Your task to perform on an android device: add a contact in the contacts app Image 0: 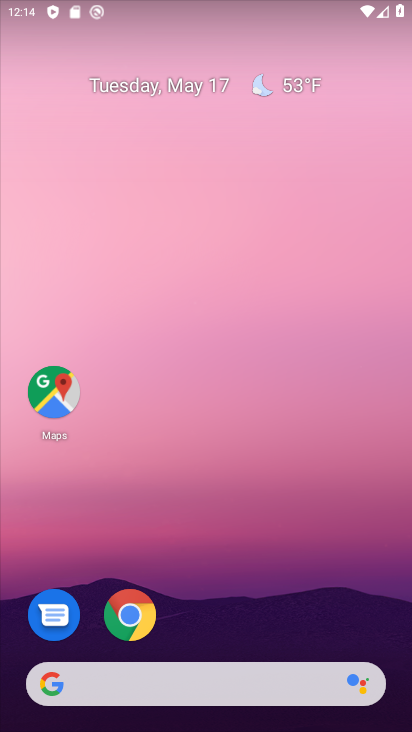
Step 0: drag from (356, 605) to (347, 138)
Your task to perform on an android device: add a contact in the contacts app Image 1: 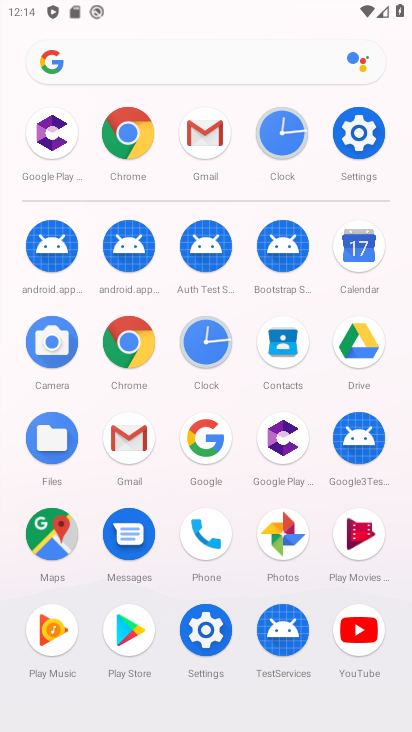
Step 1: click (277, 348)
Your task to perform on an android device: add a contact in the contacts app Image 2: 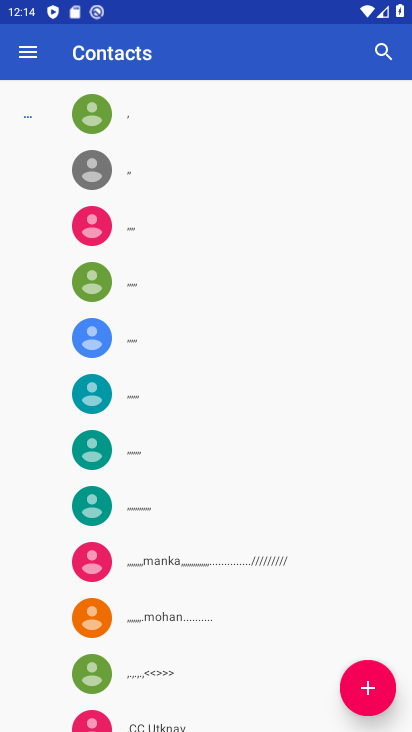
Step 2: click (360, 689)
Your task to perform on an android device: add a contact in the contacts app Image 3: 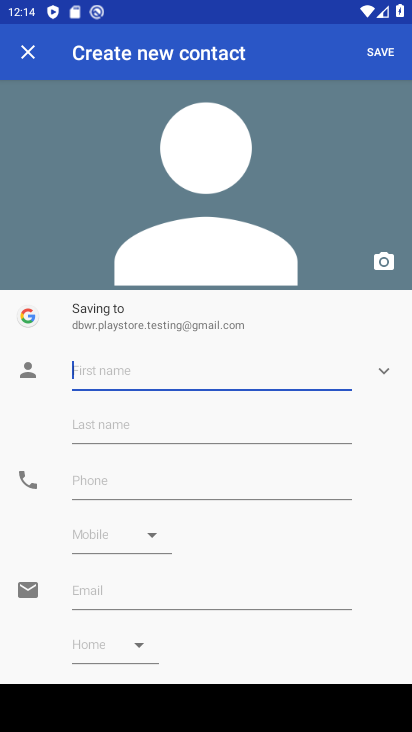
Step 3: type "dascsdc"
Your task to perform on an android device: add a contact in the contacts app Image 4: 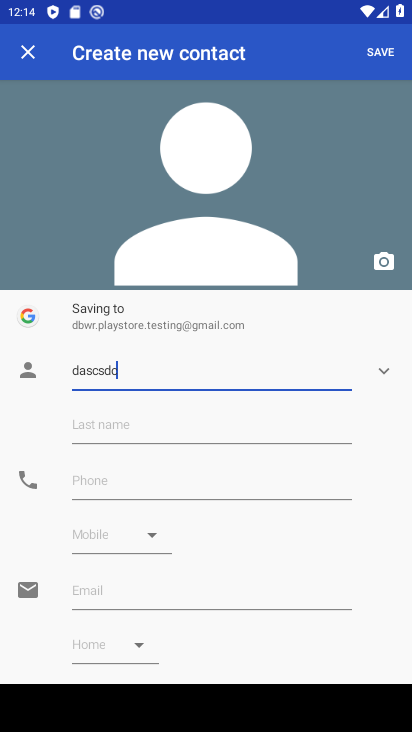
Step 4: click (269, 433)
Your task to perform on an android device: add a contact in the contacts app Image 5: 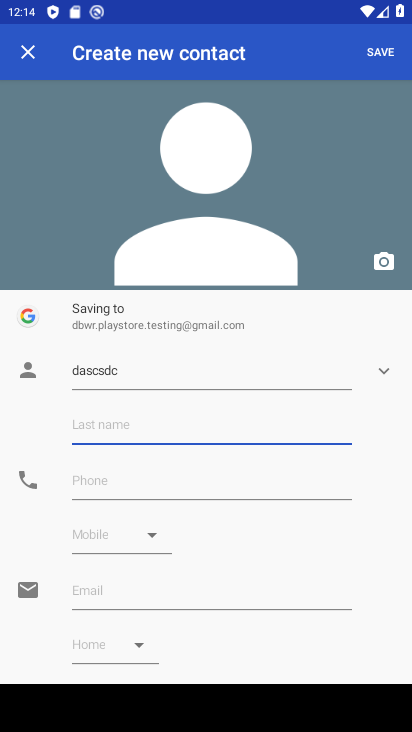
Step 5: type "scsd"
Your task to perform on an android device: add a contact in the contacts app Image 6: 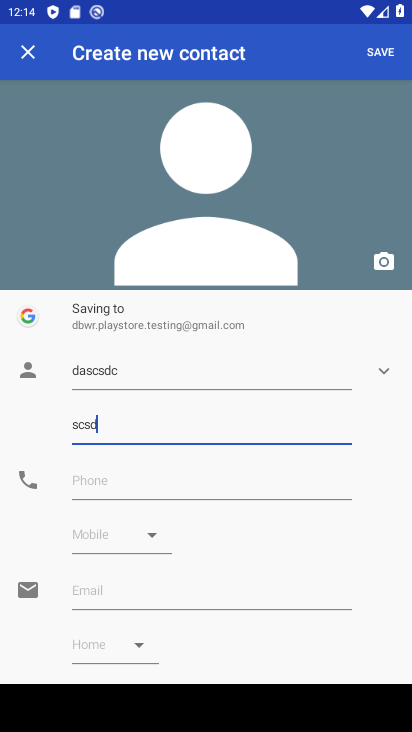
Step 6: type "ccdscdsc"
Your task to perform on an android device: add a contact in the contacts app Image 7: 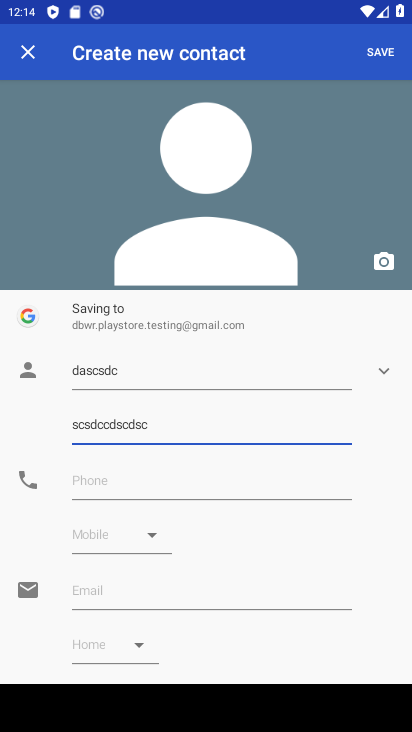
Step 7: click (244, 480)
Your task to perform on an android device: add a contact in the contacts app Image 8: 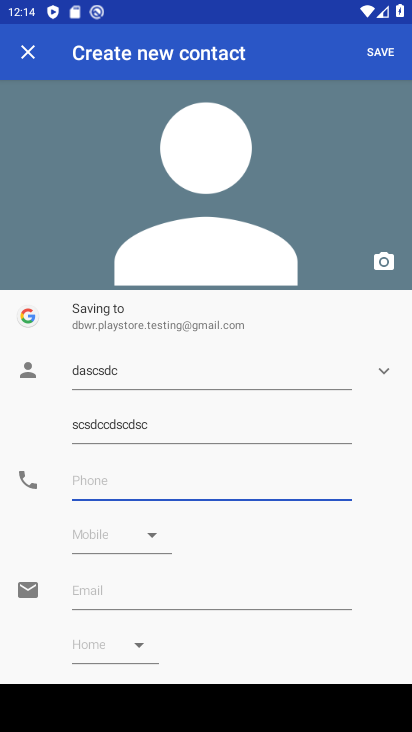
Step 8: type "sdcsdc"
Your task to perform on an android device: add a contact in the contacts app Image 9: 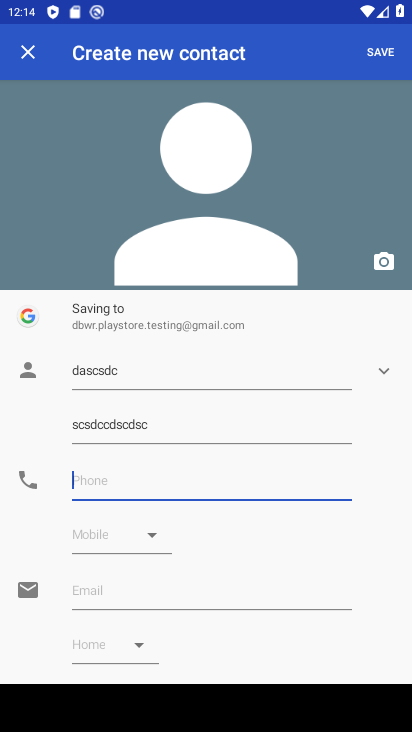
Step 9: click (254, 492)
Your task to perform on an android device: add a contact in the contacts app Image 10: 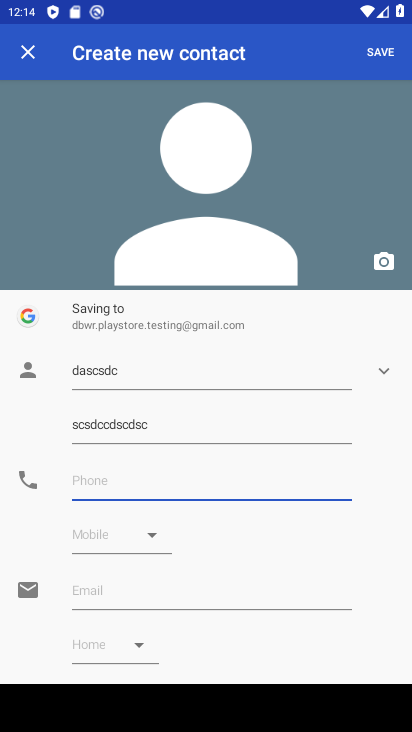
Step 10: type "43534534534"
Your task to perform on an android device: add a contact in the contacts app Image 11: 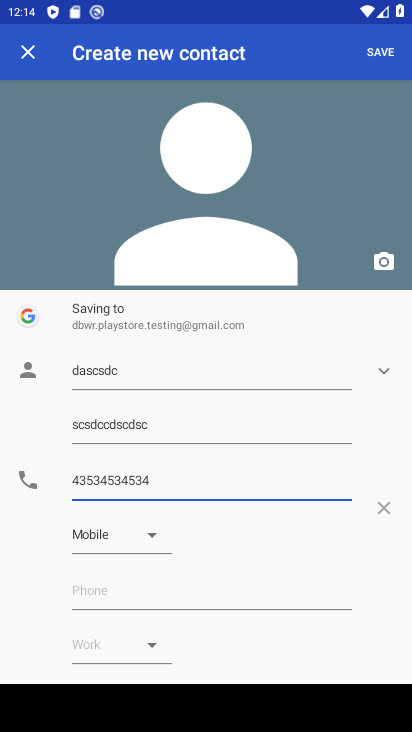
Step 11: click (378, 51)
Your task to perform on an android device: add a contact in the contacts app Image 12: 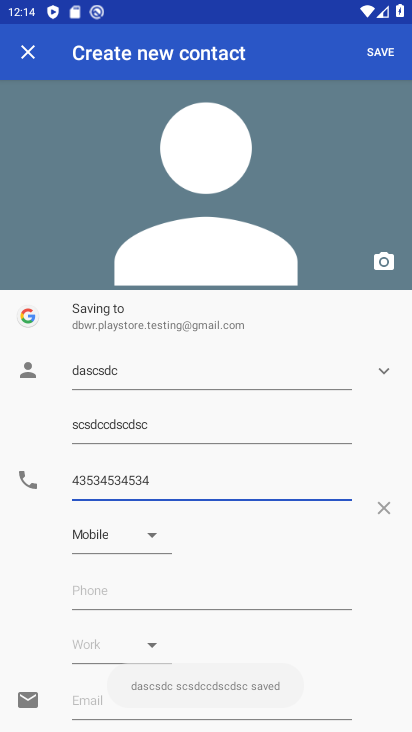
Step 12: task complete